Your task to perform on an android device: Open notification settings Image 0: 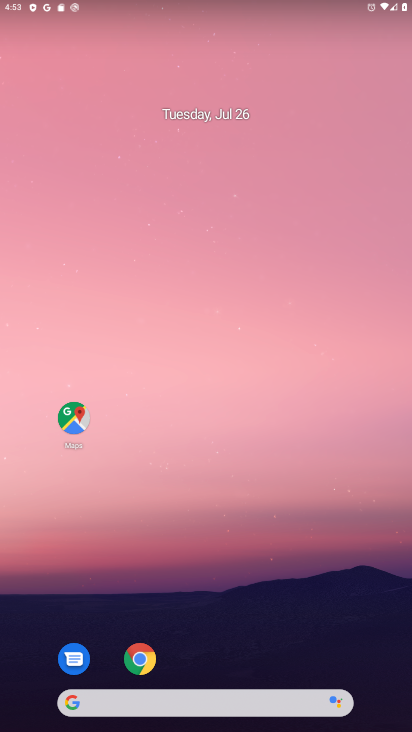
Step 0: drag from (223, 667) to (230, 38)
Your task to perform on an android device: Open notification settings Image 1: 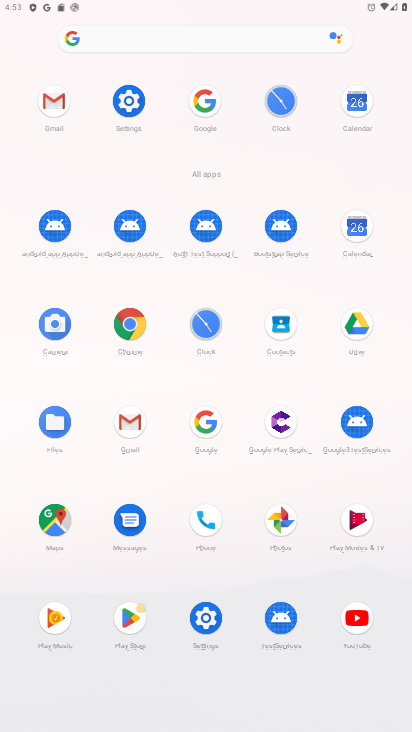
Step 1: click (210, 614)
Your task to perform on an android device: Open notification settings Image 2: 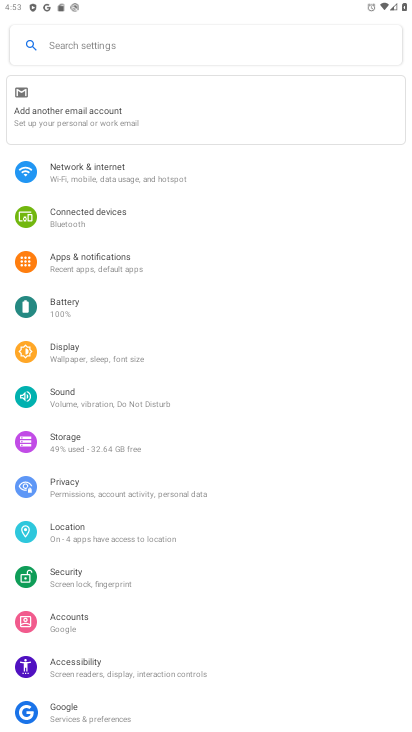
Step 2: click (122, 262)
Your task to perform on an android device: Open notification settings Image 3: 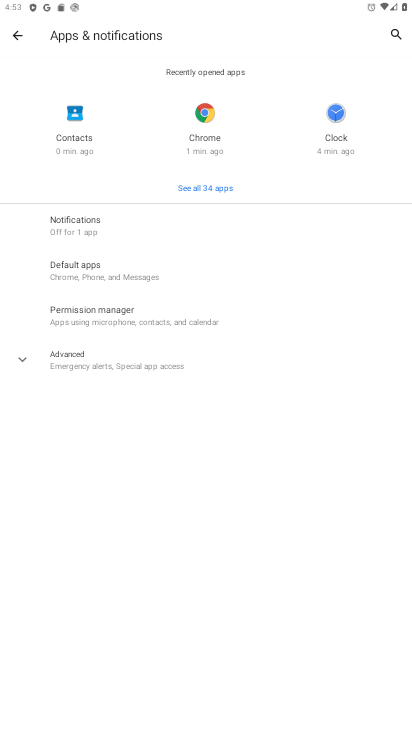
Step 3: click (99, 229)
Your task to perform on an android device: Open notification settings Image 4: 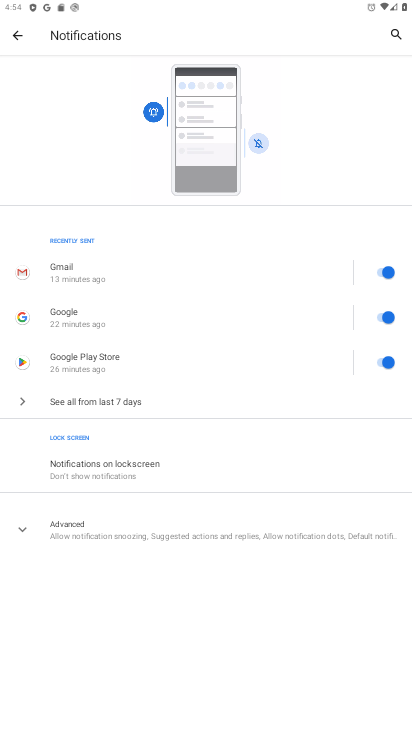
Step 4: click (61, 524)
Your task to perform on an android device: Open notification settings Image 5: 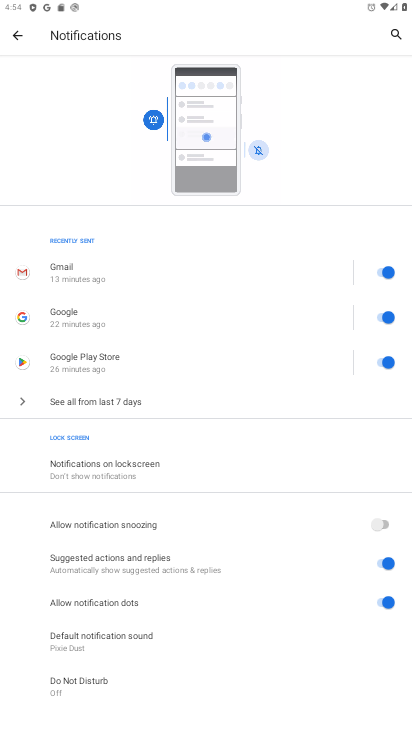
Step 5: task complete